Your task to perform on an android device: toggle wifi Image 0: 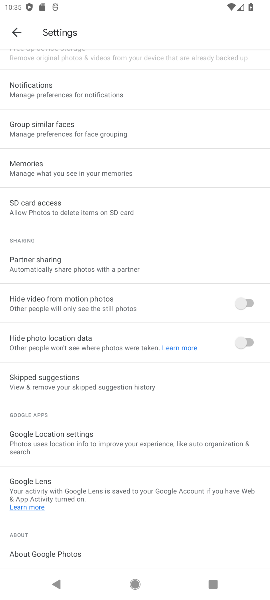
Step 0: press home button
Your task to perform on an android device: toggle wifi Image 1: 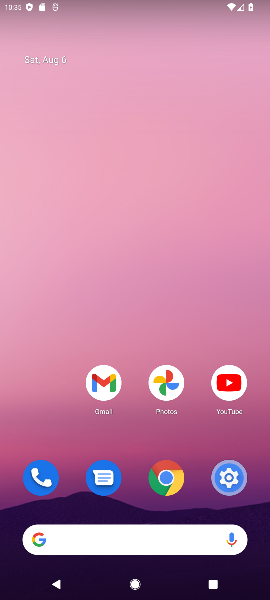
Step 1: drag from (143, 480) to (144, 130)
Your task to perform on an android device: toggle wifi Image 2: 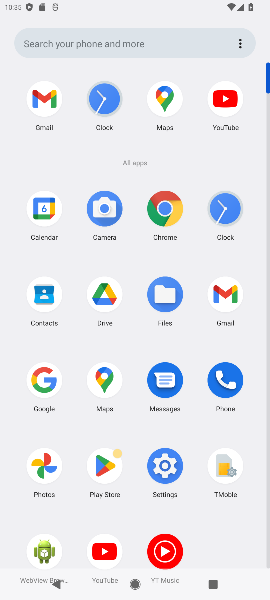
Step 2: click (167, 461)
Your task to perform on an android device: toggle wifi Image 3: 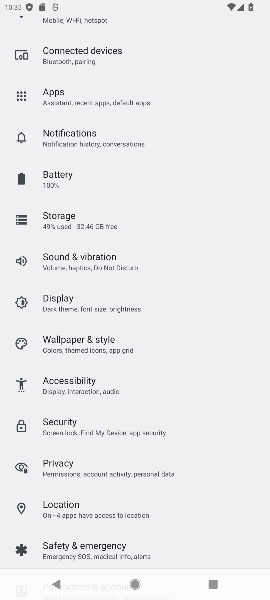
Step 3: drag from (82, 77) to (109, 492)
Your task to perform on an android device: toggle wifi Image 4: 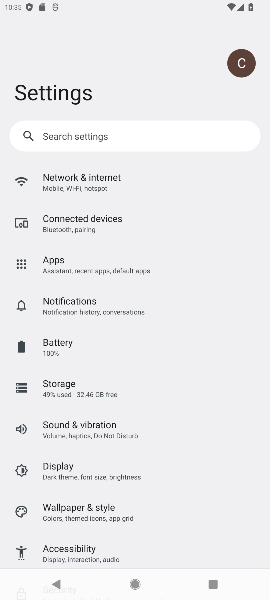
Step 4: click (80, 190)
Your task to perform on an android device: toggle wifi Image 5: 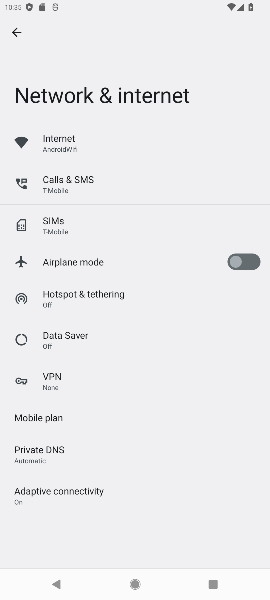
Step 5: click (62, 143)
Your task to perform on an android device: toggle wifi Image 6: 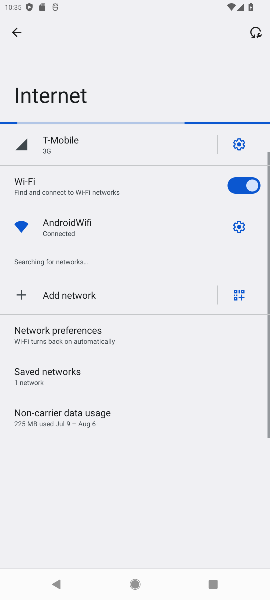
Step 6: click (242, 185)
Your task to perform on an android device: toggle wifi Image 7: 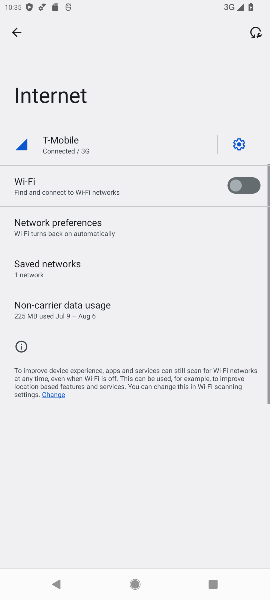
Step 7: task complete